Your task to perform on an android device: Open Android settings Image 0: 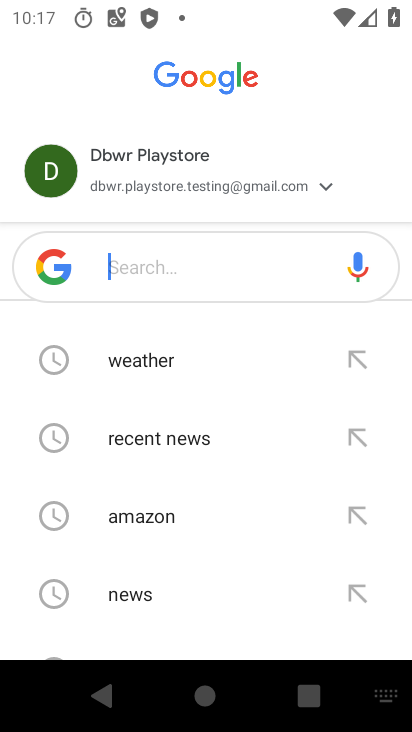
Step 0: press home button
Your task to perform on an android device: Open Android settings Image 1: 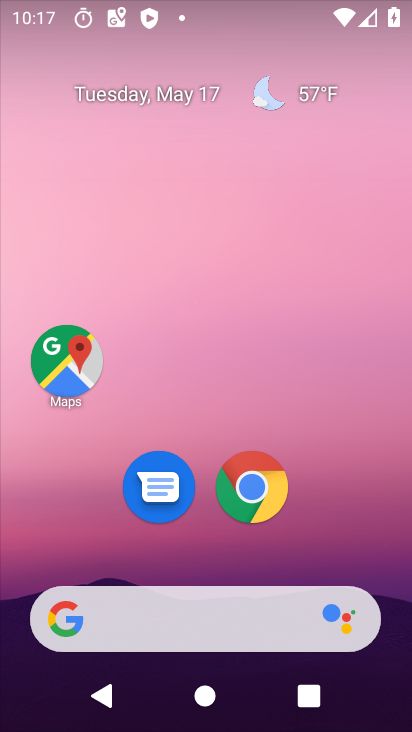
Step 1: drag from (224, 698) to (224, 51)
Your task to perform on an android device: Open Android settings Image 2: 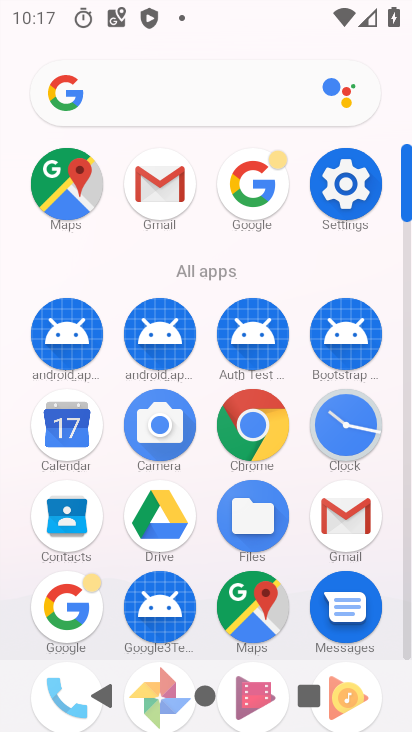
Step 2: click (344, 182)
Your task to perform on an android device: Open Android settings Image 3: 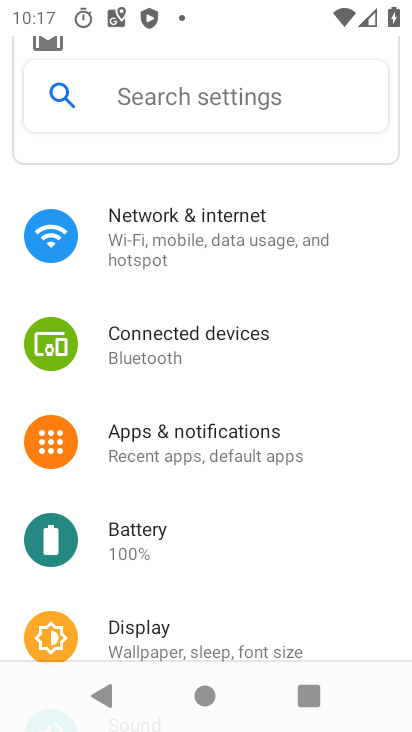
Step 3: task complete